Your task to perform on an android device: Do I have any events tomorrow? Image 0: 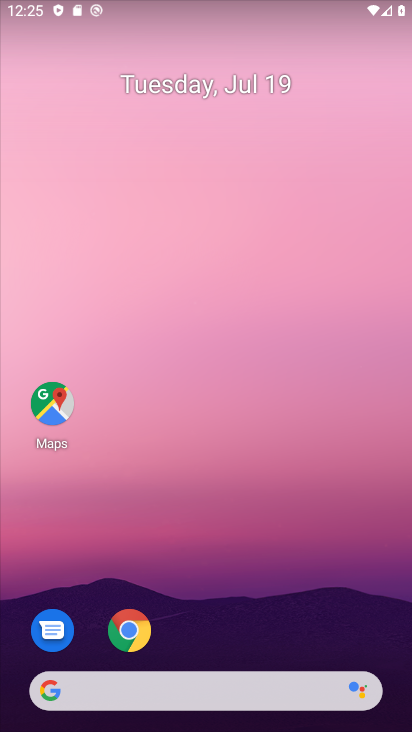
Step 0: drag from (292, 658) to (225, 61)
Your task to perform on an android device: Do I have any events tomorrow? Image 1: 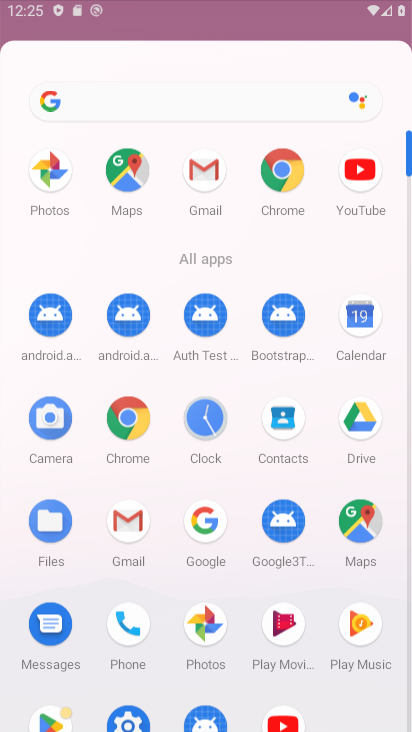
Step 1: drag from (234, 486) to (150, 148)
Your task to perform on an android device: Do I have any events tomorrow? Image 2: 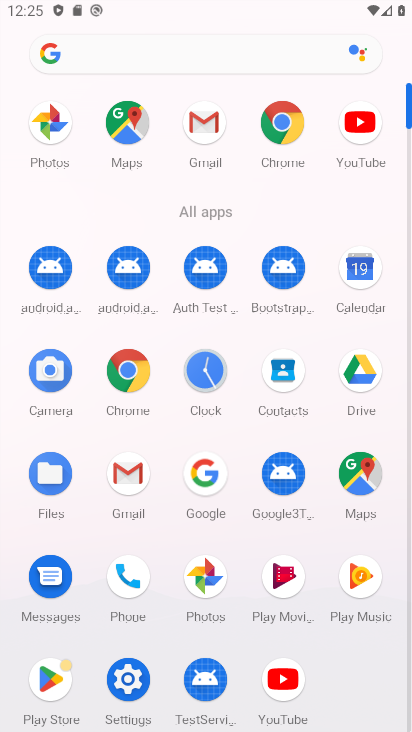
Step 2: drag from (190, 560) to (103, 245)
Your task to perform on an android device: Do I have any events tomorrow? Image 3: 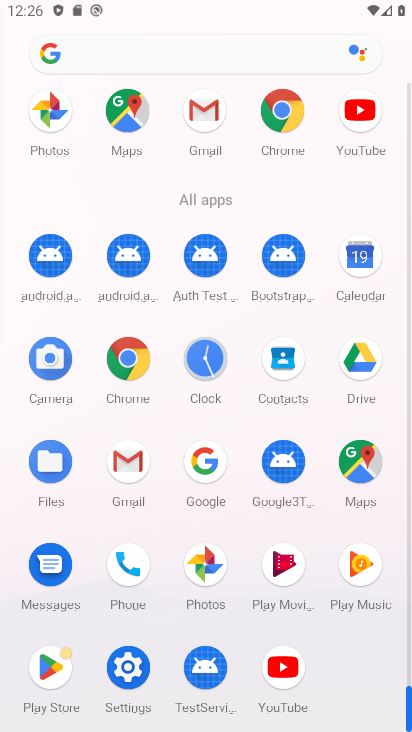
Step 3: click (361, 258)
Your task to perform on an android device: Do I have any events tomorrow? Image 4: 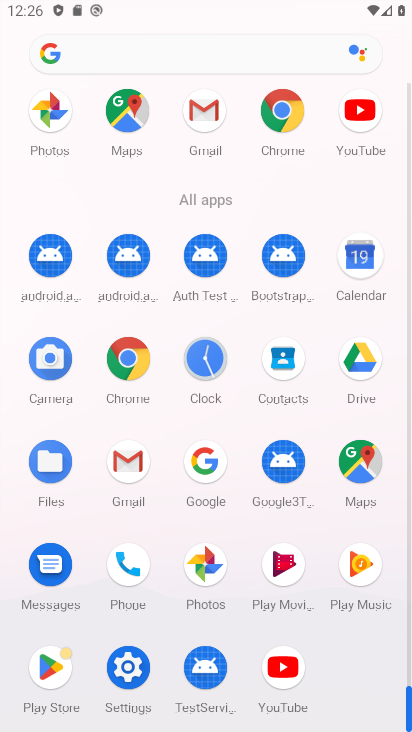
Step 4: click (361, 254)
Your task to perform on an android device: Do I have any events tomorrow? Image 5: 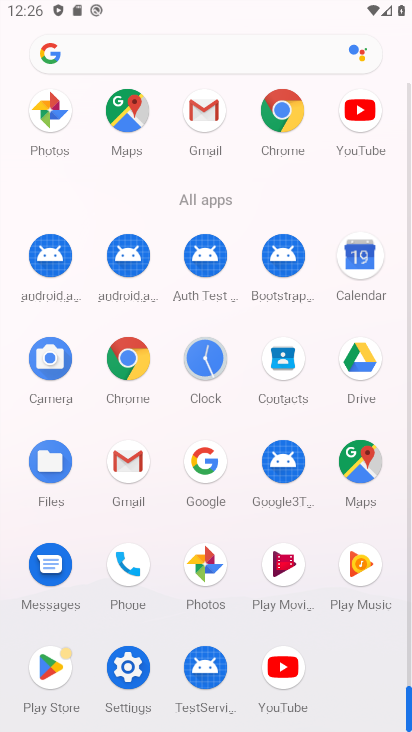
Step 5: click (362, 253)
Your task to perform on an android device: Do I have any events tomorrow? Image 6: 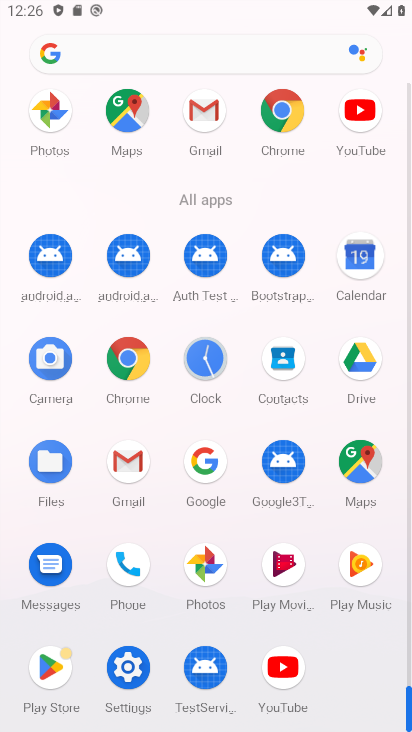
Step 6: click (363, 254)
Your task to perform on an android device: Do I have any events tomorrow? Image 7: 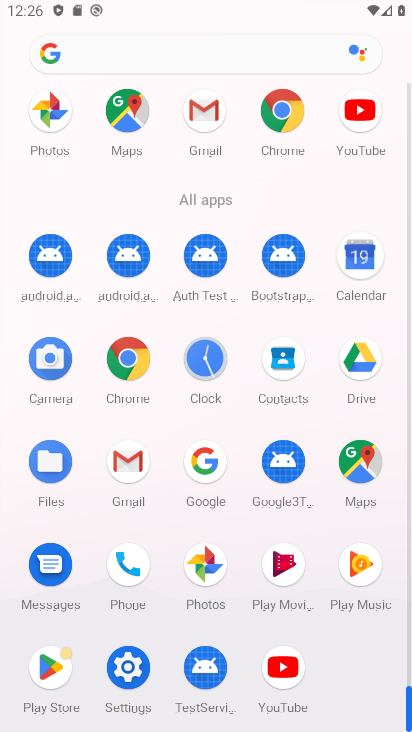
Step 7: click (363, 254)
Your task to perform on an android device: Do I have any events tomorrow? Image 8: 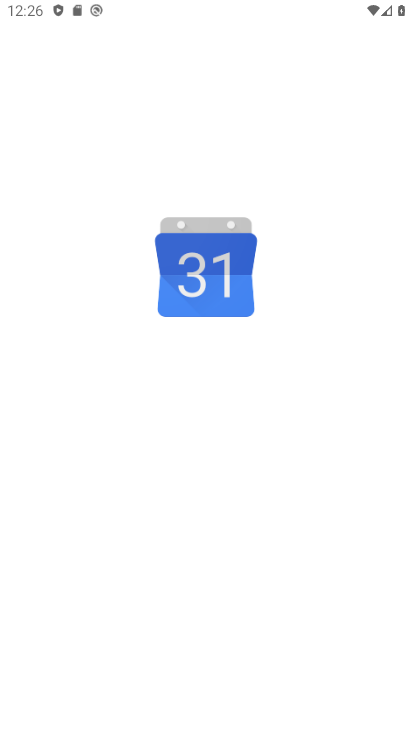
Step 8: click (363, 254)
Your task to perform on an android device: Do I have any events tomorrow? Image 9: 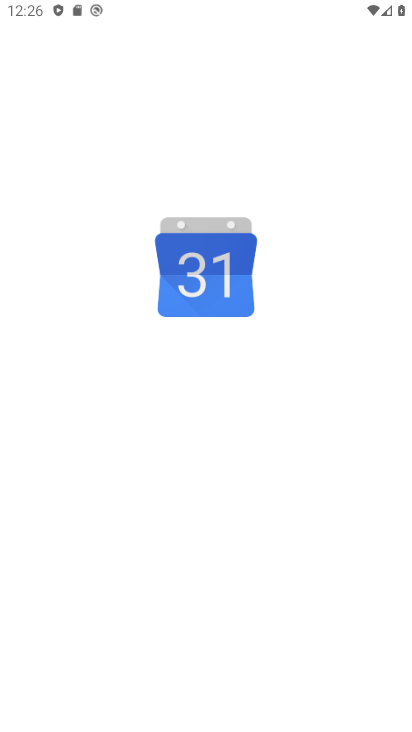
Step 9: click (365, 256)
Your task to perform on an android device: Do I have any events tomorrow? Image 10: 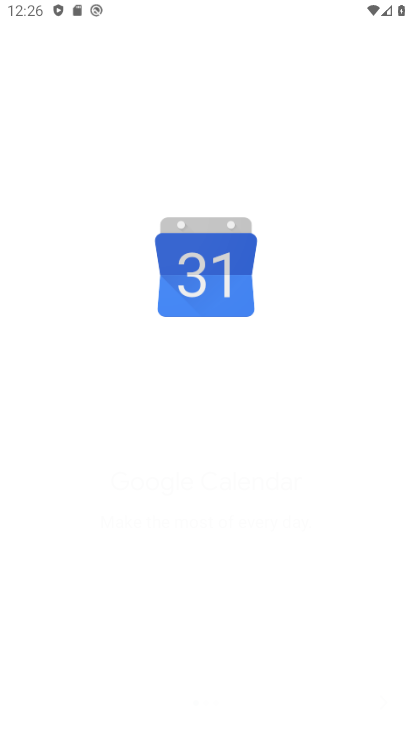
Step 10: click (365, 259)
Your task to perform on an android device: Do I have any events tomorrow? Image 11: 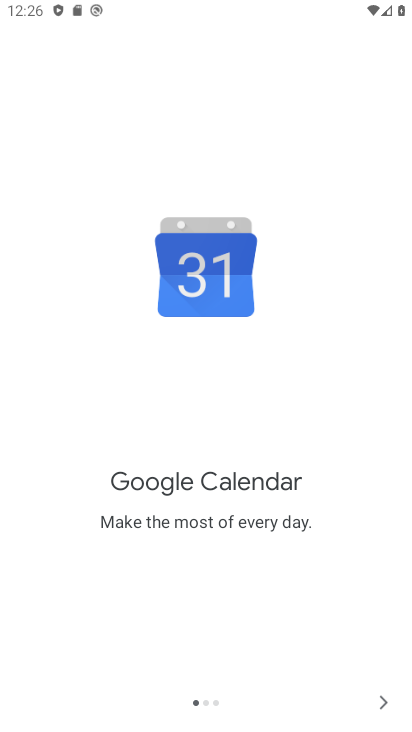
Step 11: click (382, 695)
Your task to perform on an android device: Do I have any events tomorrow? Image 12: 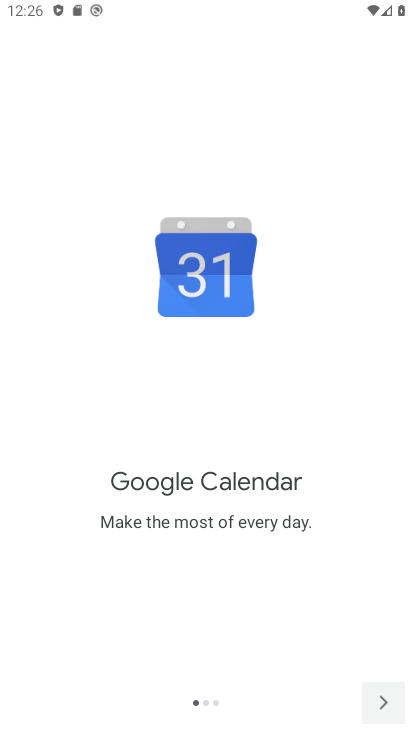
Step 12: click (382, 698)
Your task to perform on an android device: Do I have any events tomorrow? Image 13: 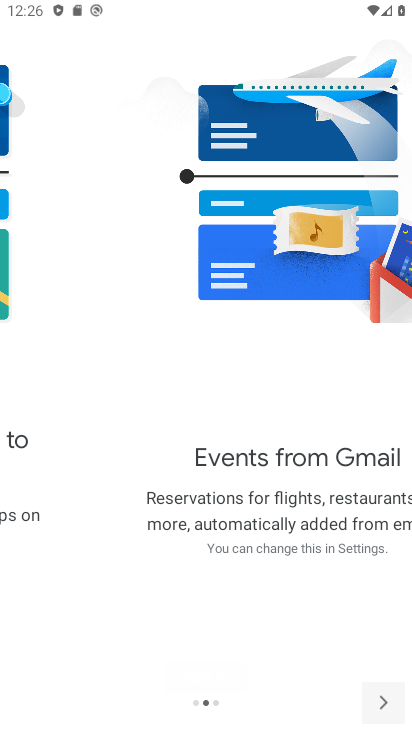
Step 13: click (383, 704)
Your task to perform on an android device: Do I have any events tomorrow? Image 14: 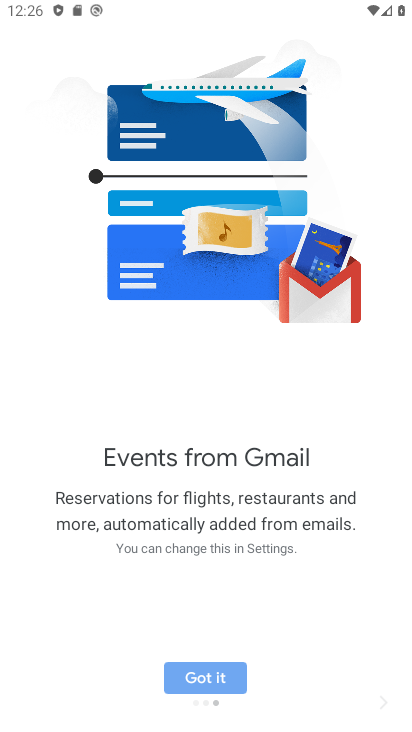
Step 14: click (383, 705)
Your task to perform on an android device: Do I have any events tomorrow? Image 15: 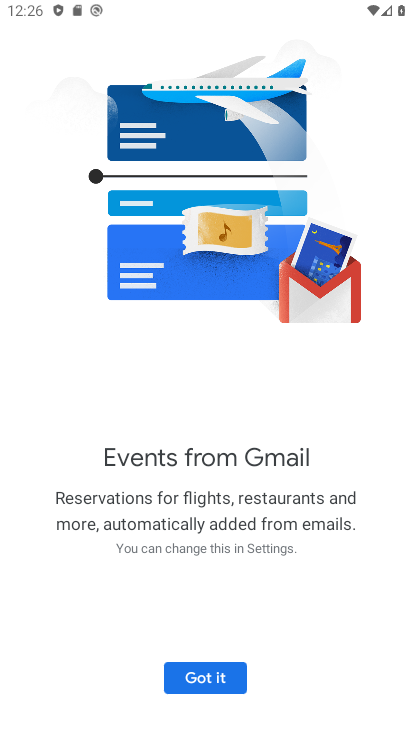
Step 15: click (382, 707)
Your task to perform on an android device: Do I have any events tomorrow? Image 16: 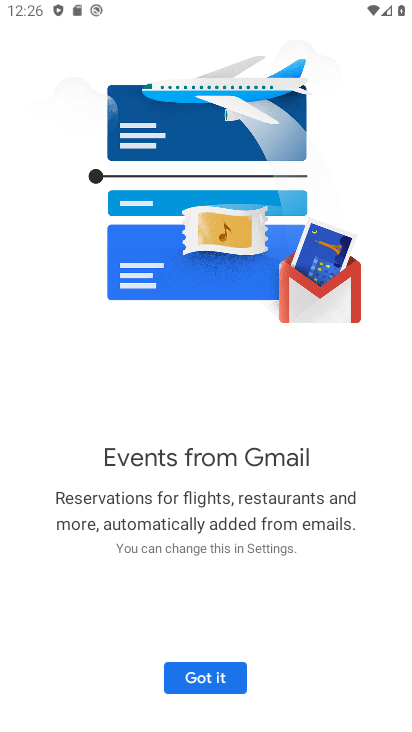
Step 16: click (382, 707)
Your task to perform on an android device: Do I have any events tomorrow? Image 17: 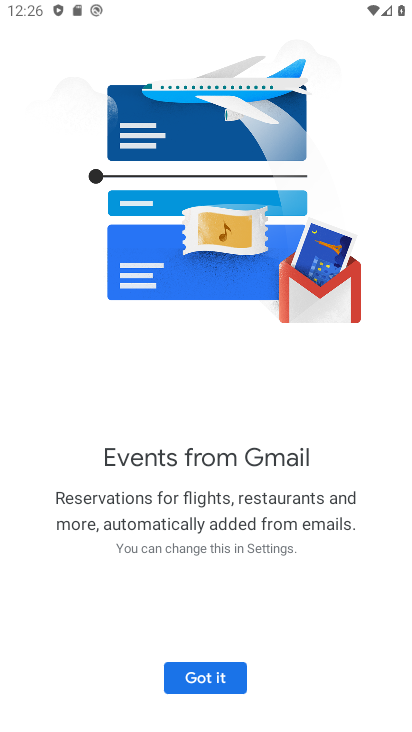
Step 17: click (382, 707)
Your task to perform on an android device: Do I have any events tomorrow? Image 18: 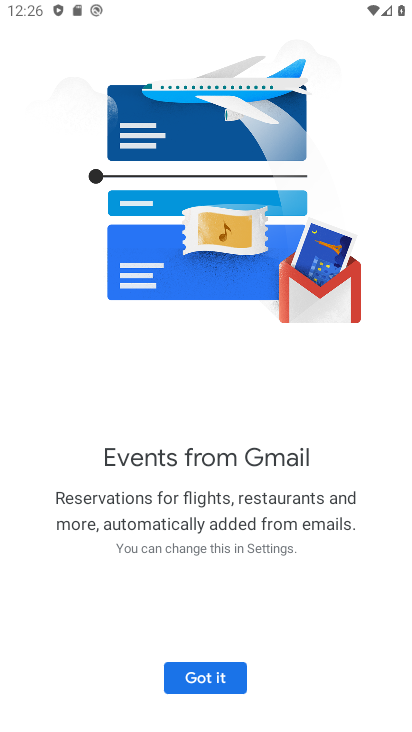
Step 18: click (216, 664)
Your task to perform on an android device: Do I have any events tomorrow? Image 19: 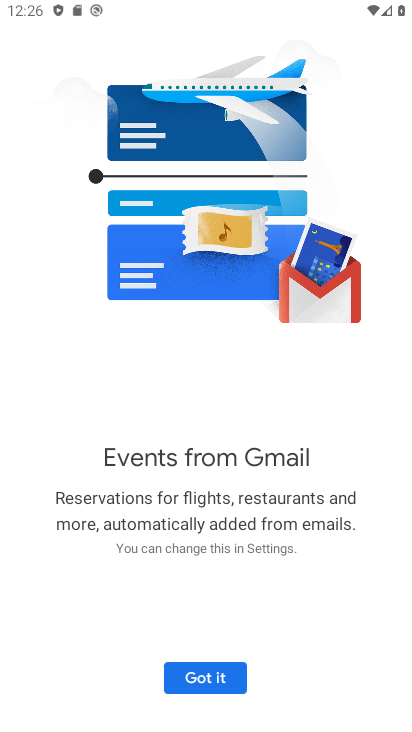
Step 19: click (213, 670)
Your task to perform on an android device: Do I have any events tomorrow? Image 20: 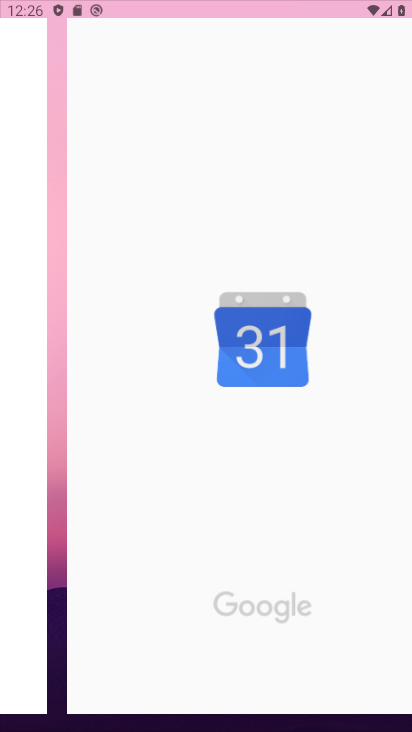
Step 20: click (213, 670)
Your task to perform on an android device: Do I have any events tomorrow? Image 21: 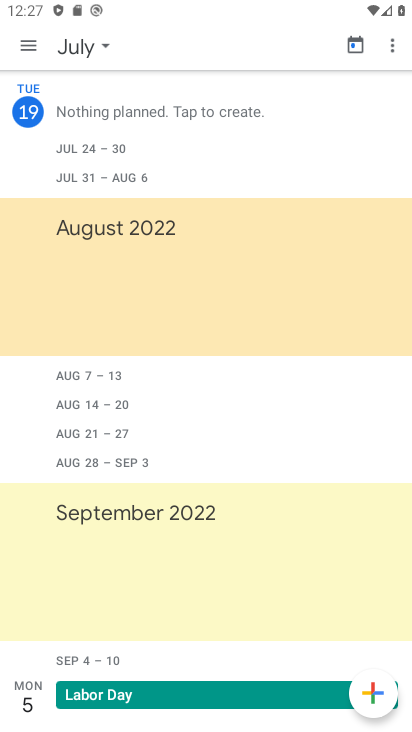
Step 21: click (100, 46)
Your task to perform on an android device: Do I have any events tomorrow? Image 22: 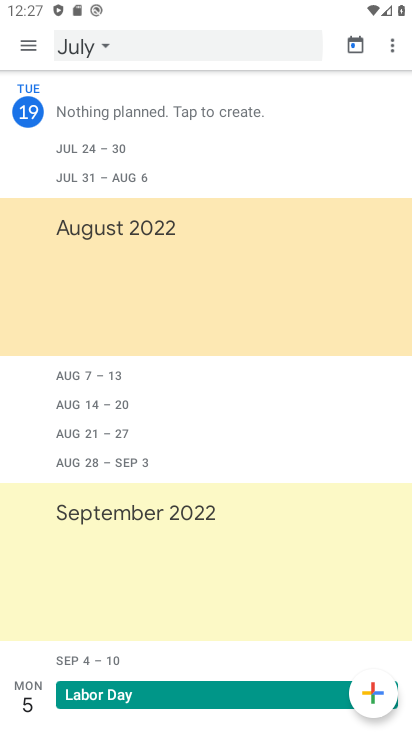
Step 22: click (100, 46)
Your task to perform on an android device: Do I have any events tomorrow? Image 23: 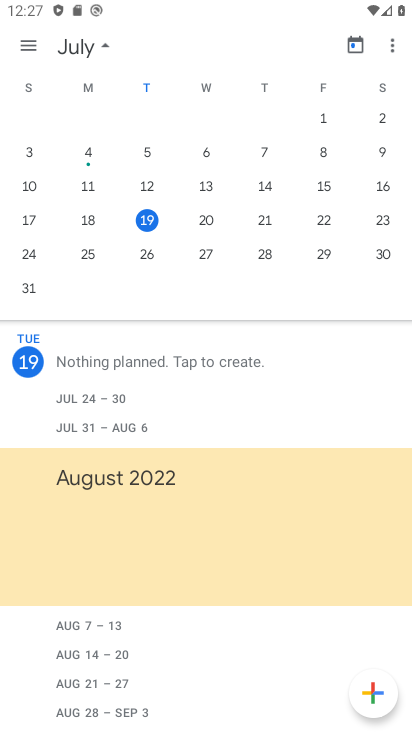
Step 23: click (210, 218)
Your task to perform on an android device: Do I have any events tomorrow? Image 24: 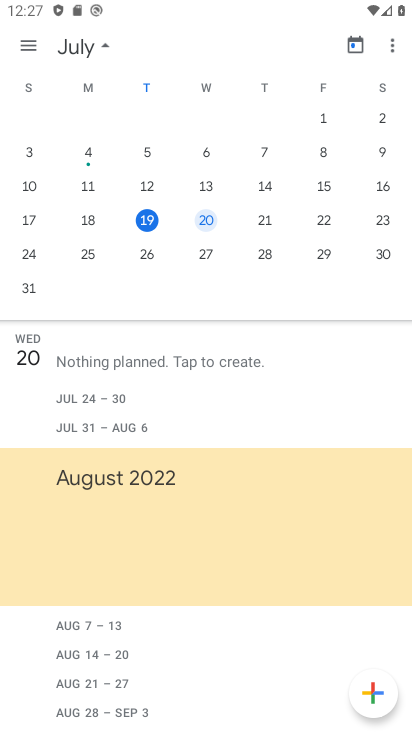
Step 24: click (208, 215)
Your task to perform on an android device: Do I have any events tomorrow? Image 25: 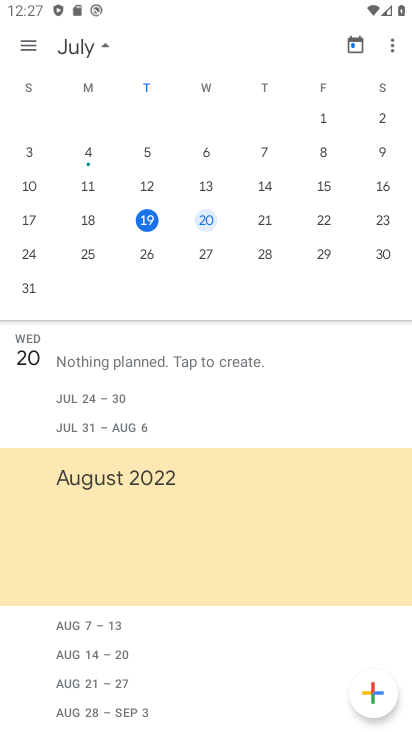
Step 25: click (209, 216)
Your task to perform on an android device: Do I have any events tomorrow? Image 26: 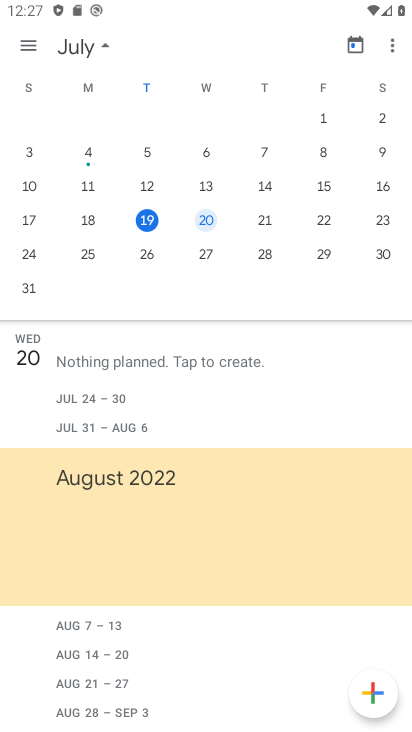
Step 26: click (210, 217)
Your task to perform on an android device: Do I have any events tomorrow? Image 27: 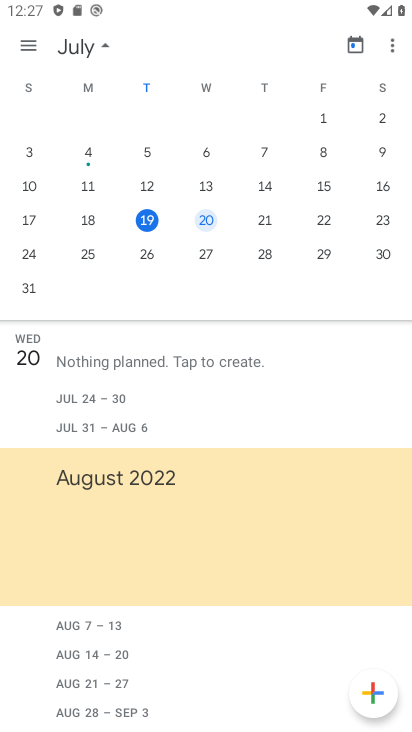
Step 27: click (211, 216)
Your task to perform on an android device: Do I have any events tomorrow? Image 28: 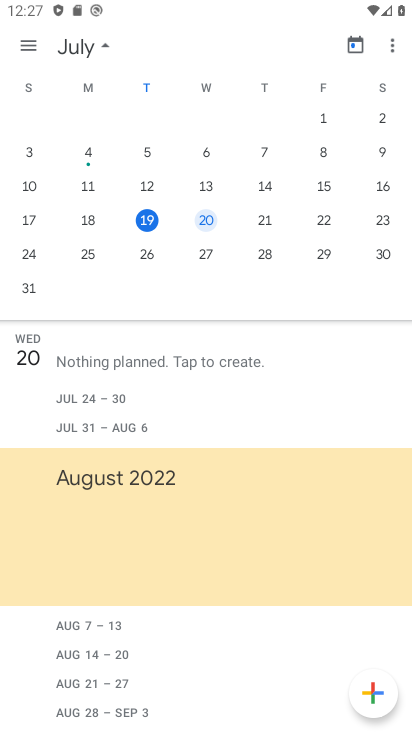
Step 28: click (211, 216)
Your task to perform on an android device: Do I have any events tomorrow? Image 29: 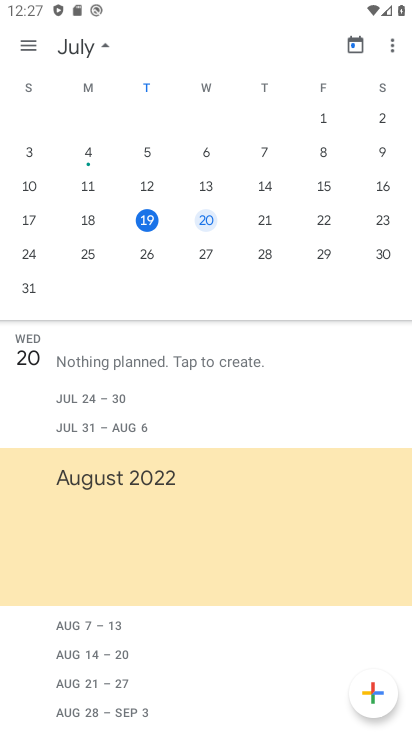
Step 29: click (211, 215)
Your task to perform on an android device: Do I have any events tomorrow? Image 30: 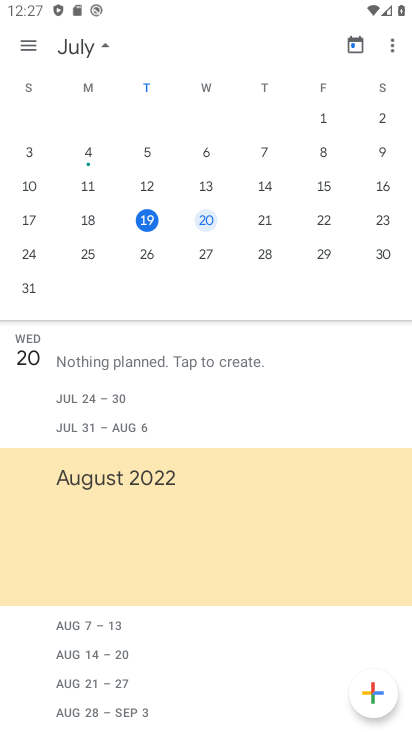
Step 30: click (213, 212)
Your task to perform on an android device: Do I have any events tomorrow? Image 31: 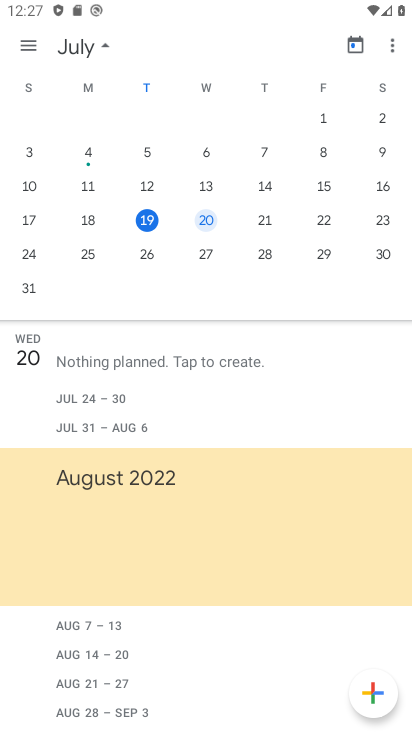
Step 31: task complete